Your task to perform on an android device: toggle pop-ups in chrome Image 0: 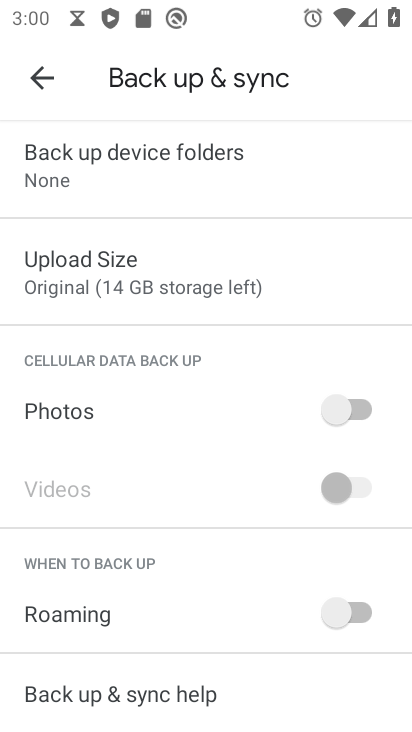
Step 0: press home button
Your task to perform on an android device: toggle pop-ups in chrome Image 1: 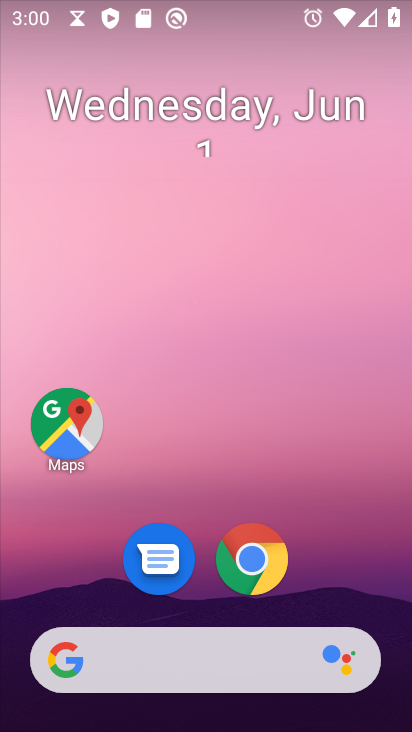
Step 1: click (252, 560)
Your task to perform on an android device: toggle pop-ups in chrome Image 2: 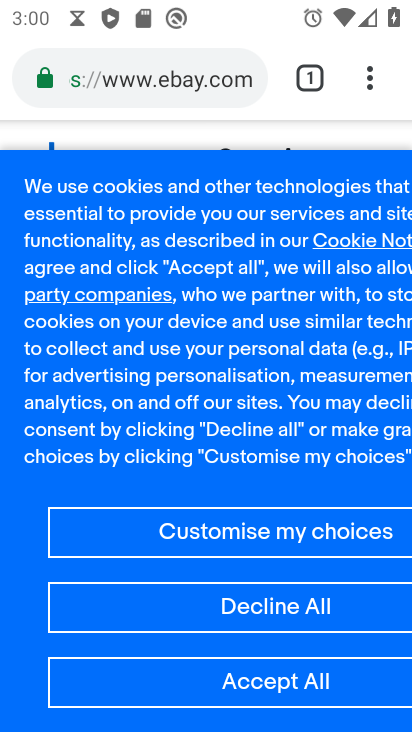
Step 2: click (375, 66)
Your task to perform on an android device: toggle pop-ups in chrome Image 3: 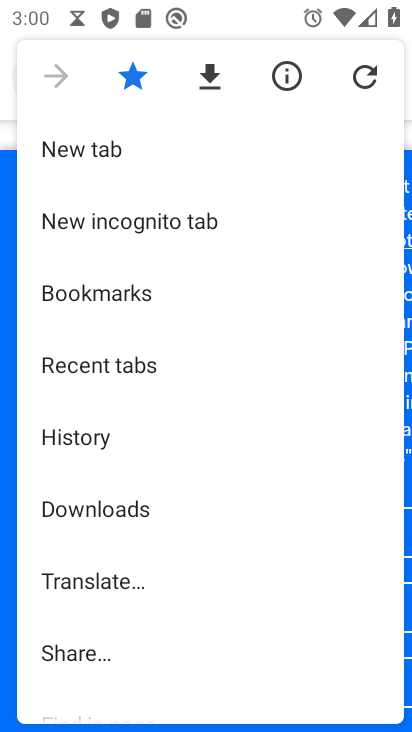
Step 3: drag from (137, 665) to (209, 155)
Your task to perform on an android device: toggle pop-ups in chrome Image 4: 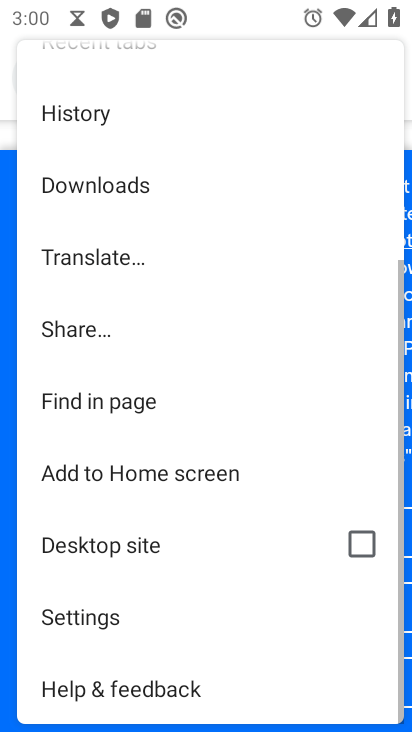
Step 4: click (118, 626)
Your task to perform on an android device: toggle pop-ups in chrome Image 5: 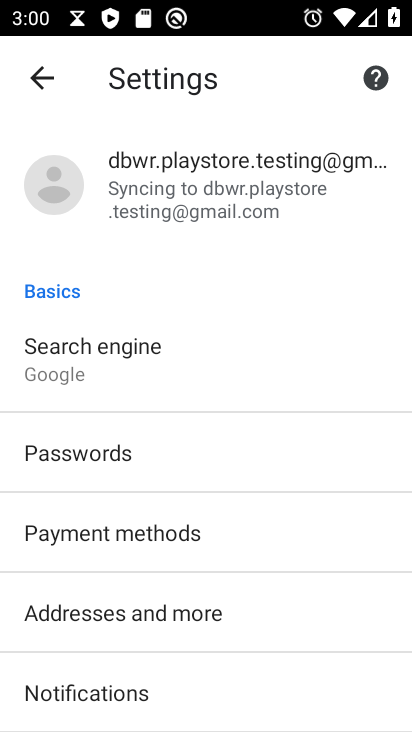
Step 5: drag from (94, 668) to (155, 206)
Your task to perform on an android device: toggle pop-ups in chrome Image 6: 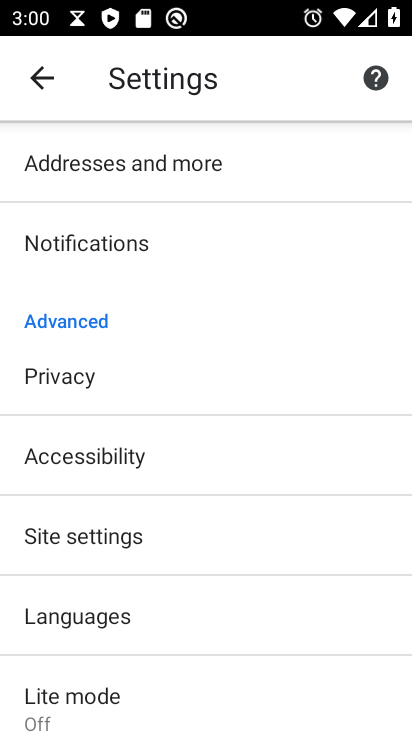
Step 6: click (73, 545)
Your task to perform on an android device: toggle pop-ups in chrome Image 7: 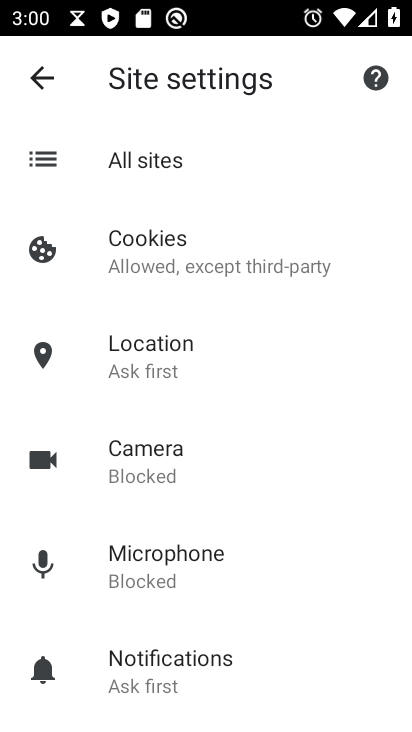
Step 7: drag from (201, 651) to (228, 135)
Your task to perform on an android device: toggle pop-ups in chrome Image 8: 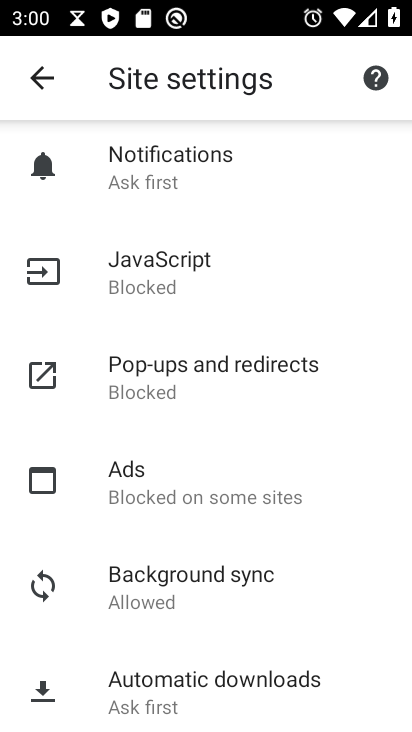
Step 8: click (205, 397)
Your task to perform on an android device: toggle pop-ups in chrome Image 9: 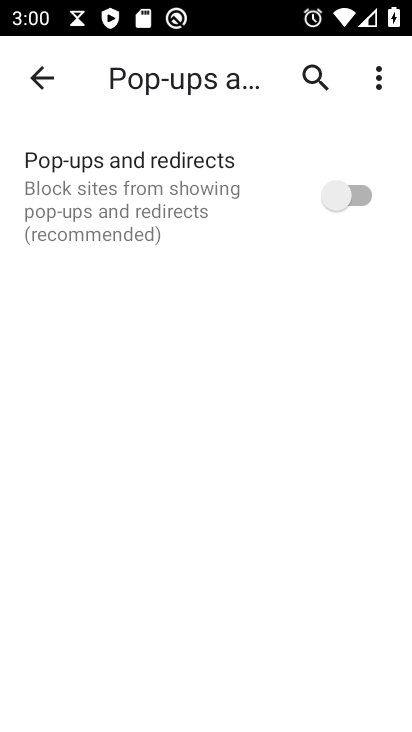
Step 9: click (342, 221)
Your task to perform on an android device: toggle pop-ups in chrome Image 10: 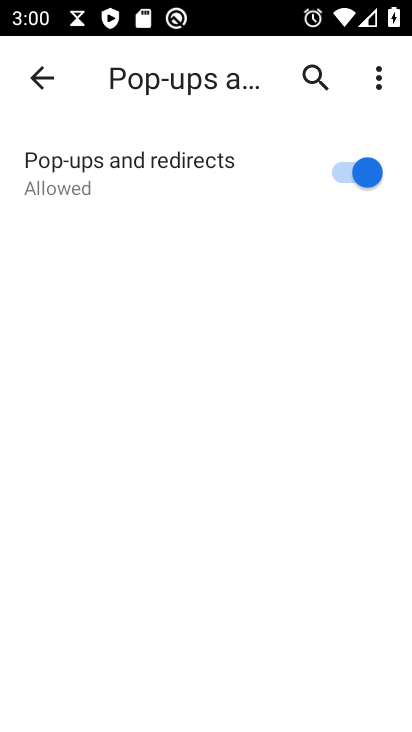
Step 10: task complete